Your task to perform on an android device: toggle location history Image 0: 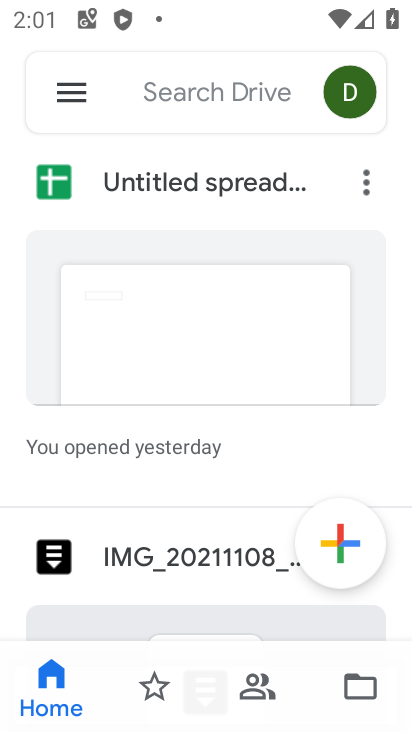
Step 0: press home button
Your task to perform on an android device: toggle location history Image 1: 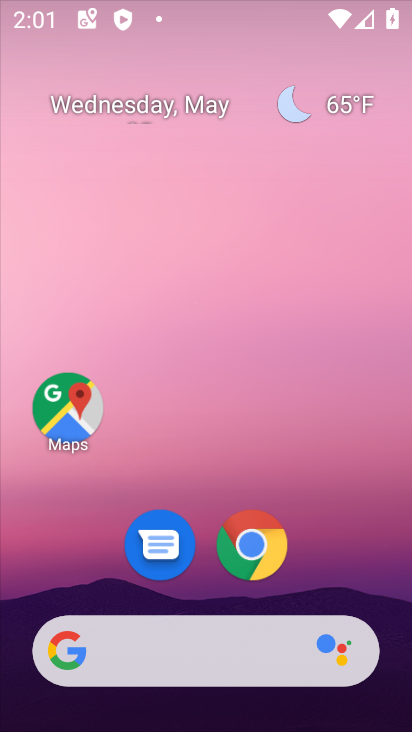
Step 1: drag from (334, 605) to (198, 52)
Your task to perform on an android device: toggle location history Image 2: 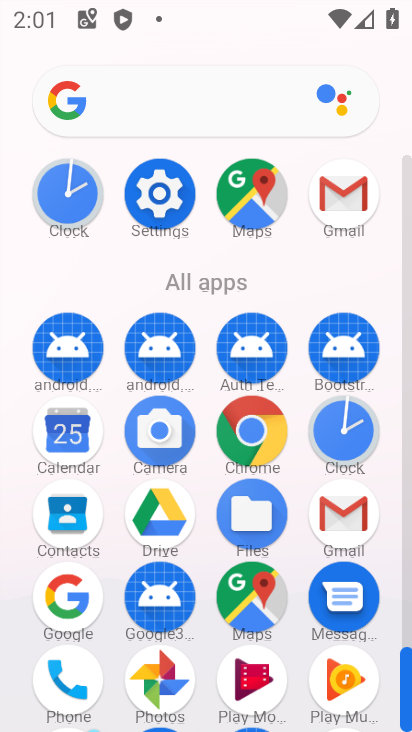
Step 2: click (165, 173)
Your task to perform on an android device: toggle location history Image 3: 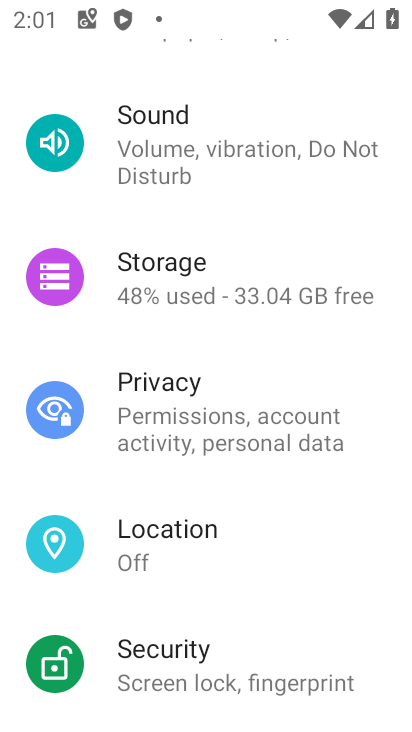
Step 3: click (221, 535)
Your task to perform on an android device: toggle location history Image 4: 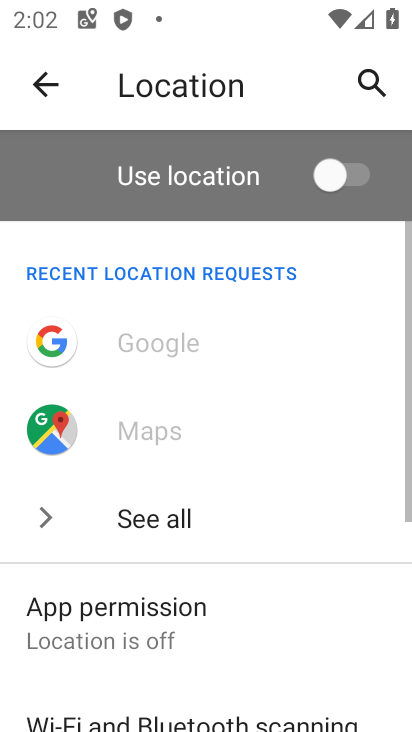
Step 4: drag from (280, 618) to (263, 140)
Your task to perform on an android device: toggle location history Image 5: 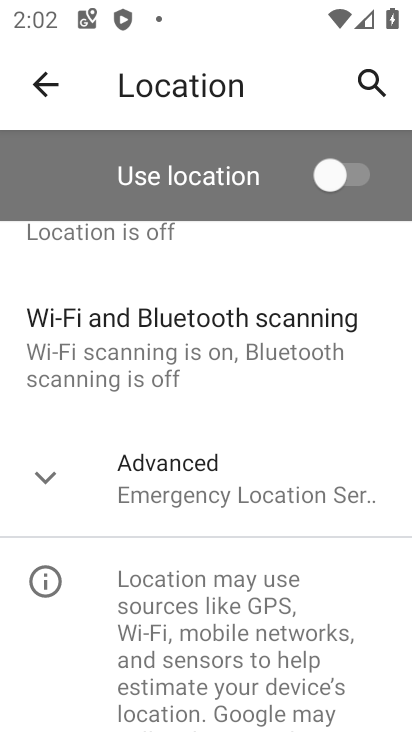
Step 5: click (247, 483)
Your task to perform on an android device: toggle location history Image 6: 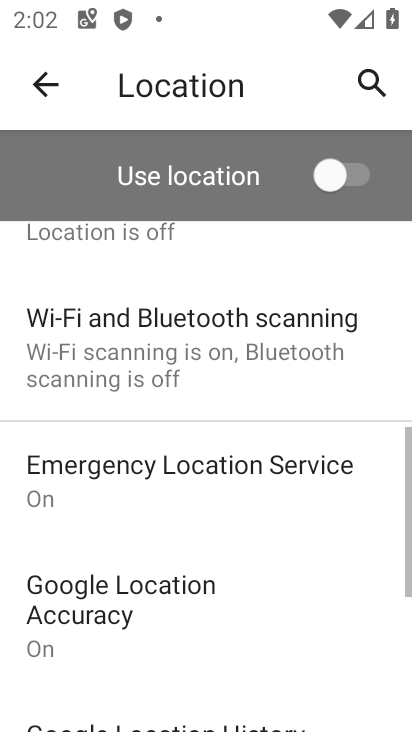
Step 6: drag from (245, 695) to (238, 304)
Your task to perform on an android device: toggle location history Image 7: 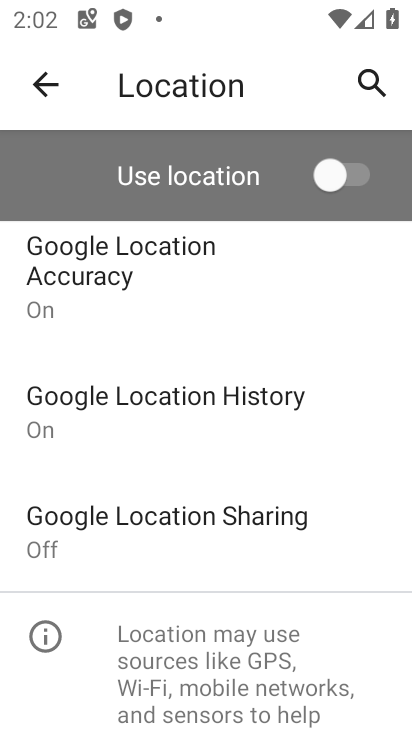
Step 7: click (251, 522)
Your task to perform on an android device: toggle location history Image 8: 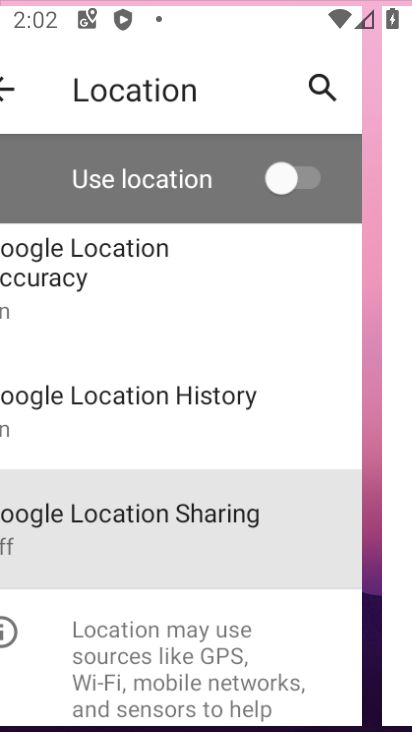
Step 8: click (250, 415)
Your task to perform on an android device: toggle location history Image 9: 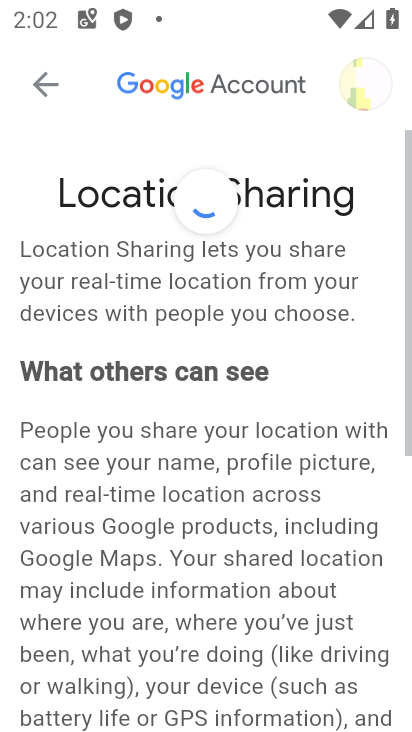
Step 9: press back button
Your task to perform on an android device: toggle location history Image 10: 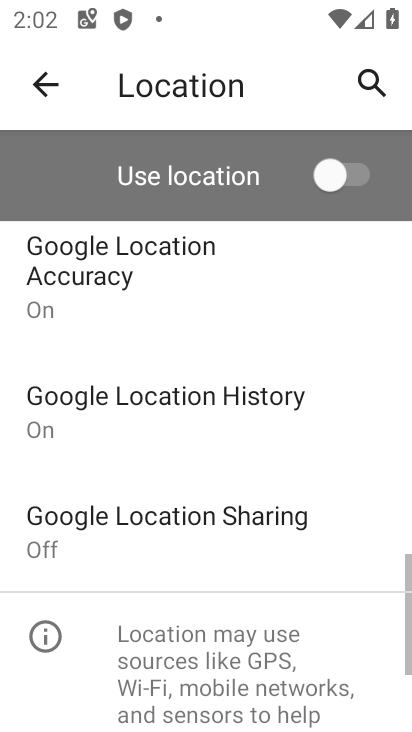
Step 10: click (230, 405)
Your task to perform on an android device: toggle location history Image 11: 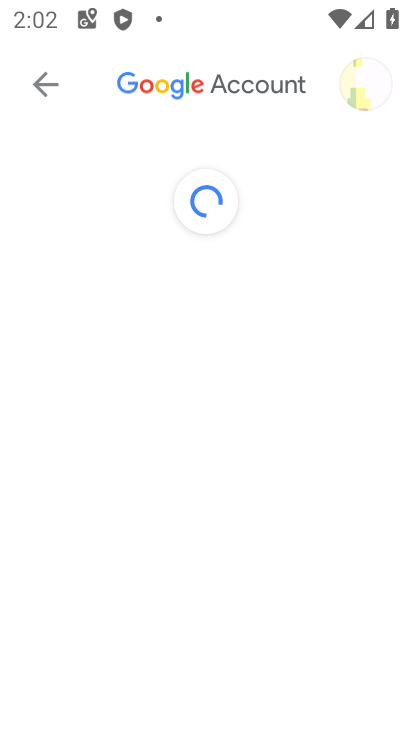
Step 11: drag from (227, 634) to (284, 143)
Your task to perform on an android device: toggle location history Image 12: 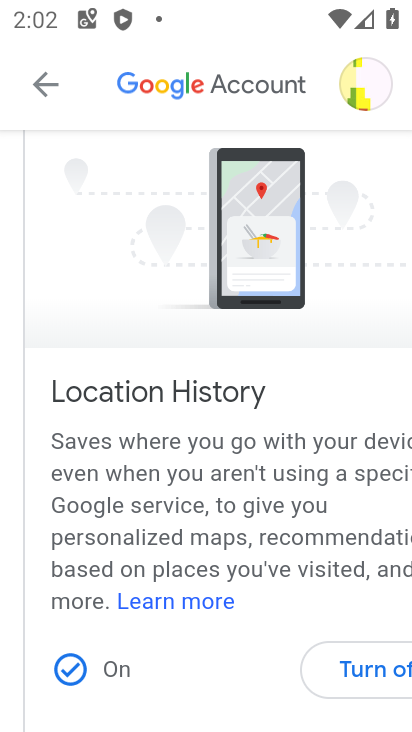
Step 12: click (359, 657)
Your task to perform on an android device: toggle location history Image 13: 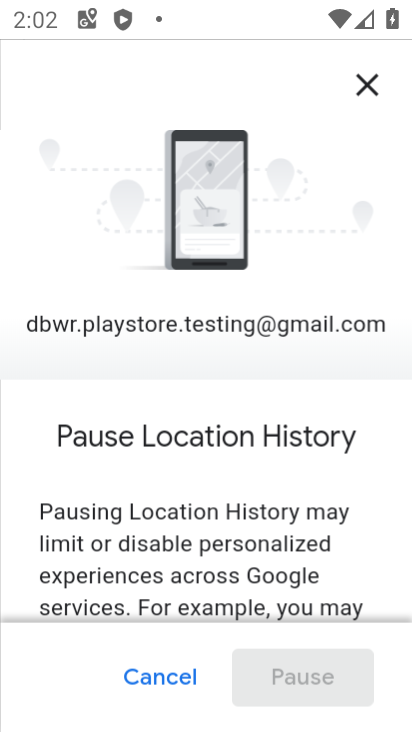
Step 13: drag from (260, 618) to (292, 175)
Your task to perform on an android device: toggle location history Image 14: 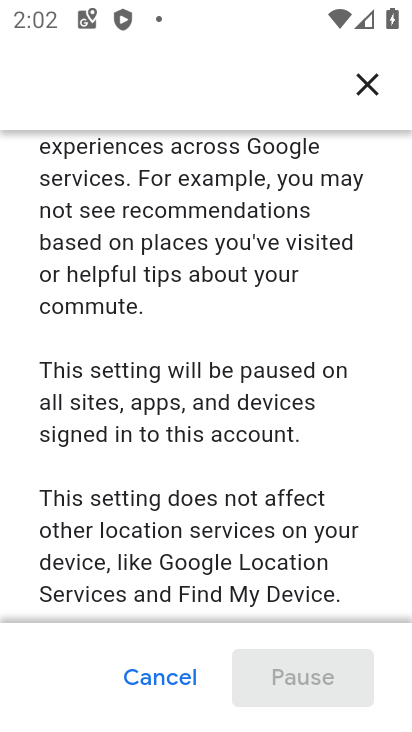
Step 14: drag from (222, 563) to (281, 126)
Your task to perform on an android device: toggle location history Image 15: 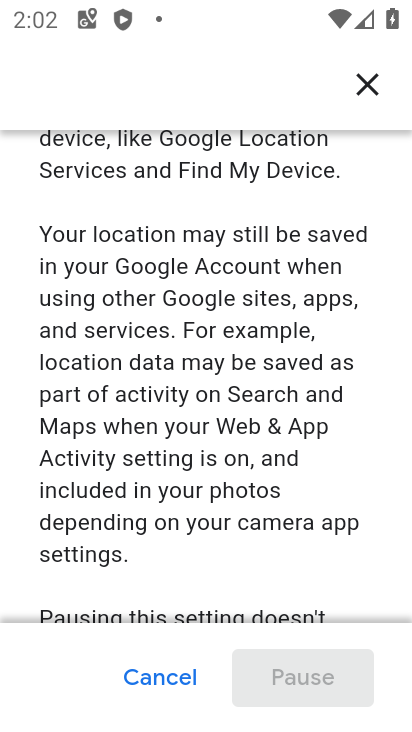
Step 15: drag from (298, 558) to (270, 67)
Your task to perform on an android device: toggle location history Image 16: 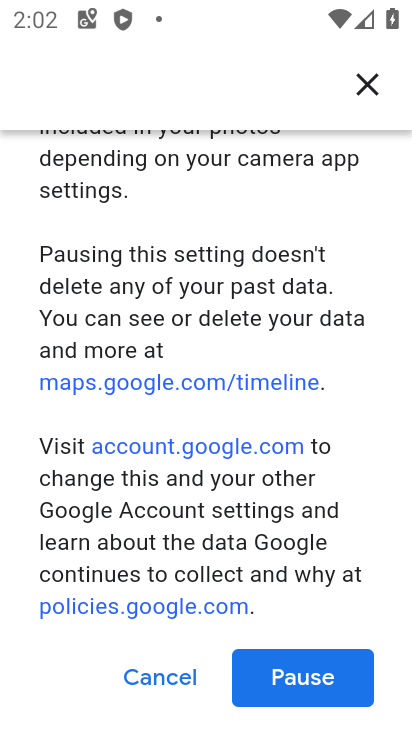
Step 16: click (303, 682)
Your task to perform on an android device: toggle location history Image 17: 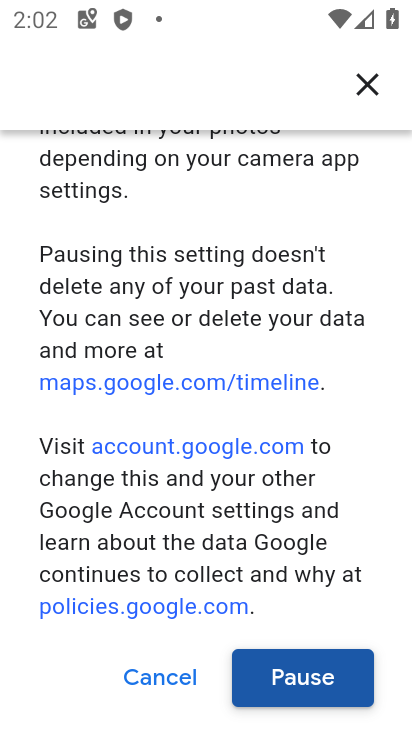
Step 17: click (328, 671)
Your task to perform on an android device: toggle location history Image 18: 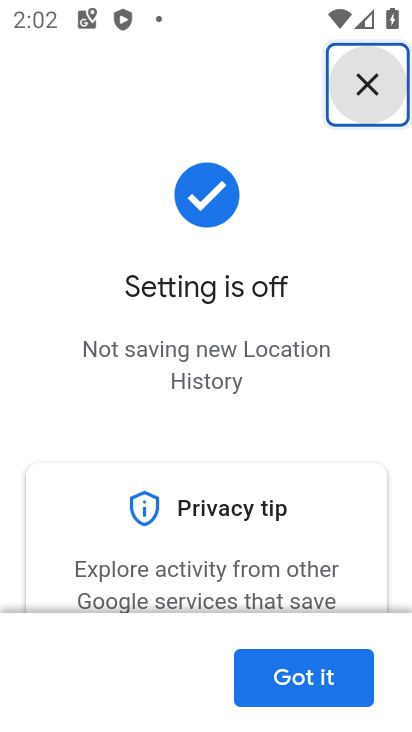
Step 18: click (345, 679)
Your task to perform on an android device: toggle location history Image 19: 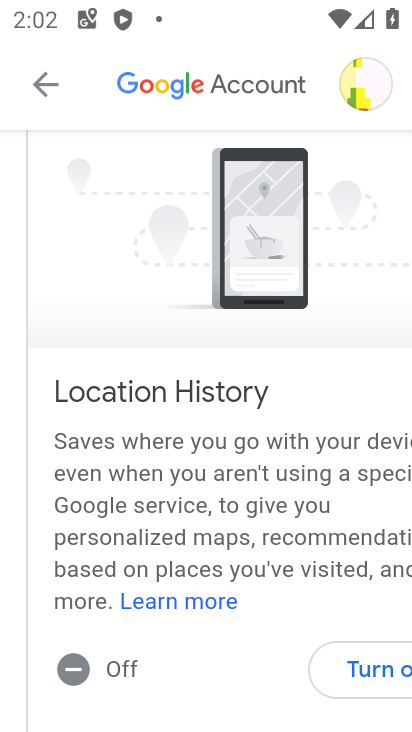
Step 19: task complete